Your task to perform on an android device: Open the web browser Image 0: 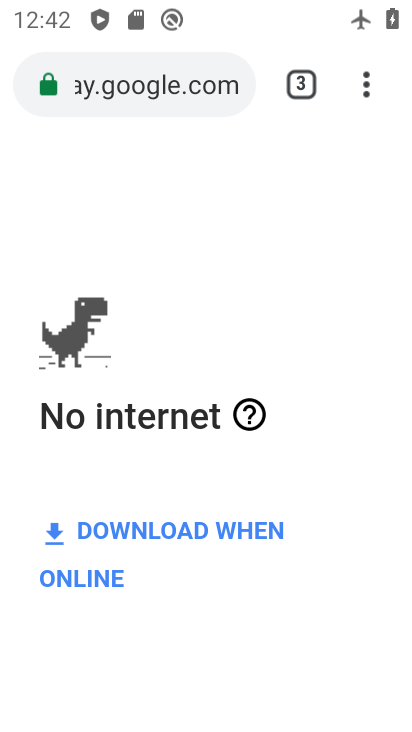
Step 0: task impossible